Your task to perform on an android device: turn off smart reply in the gmail app Image 0: 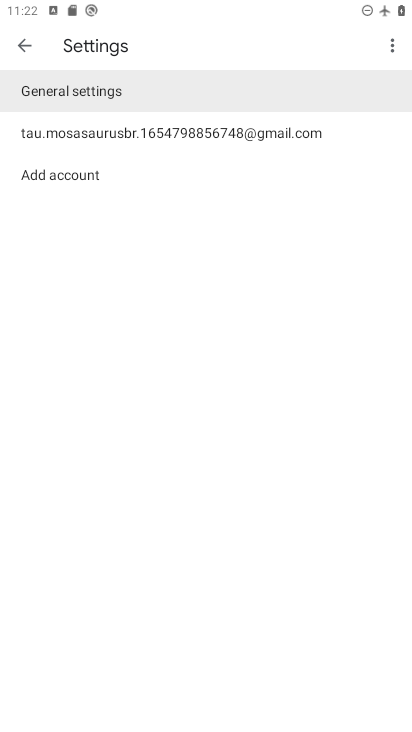
Step 0: press home button
Your task to perform on an android device: turn off smart reply in the gmail app Image 1: 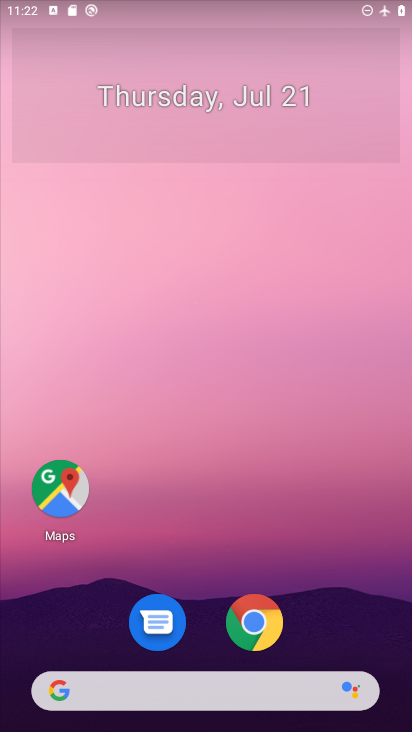
Step 1: drag from (233, 697) to (411, 35)
Your task to perform on an android device: turn off smart reply in the gmail app Image 2: 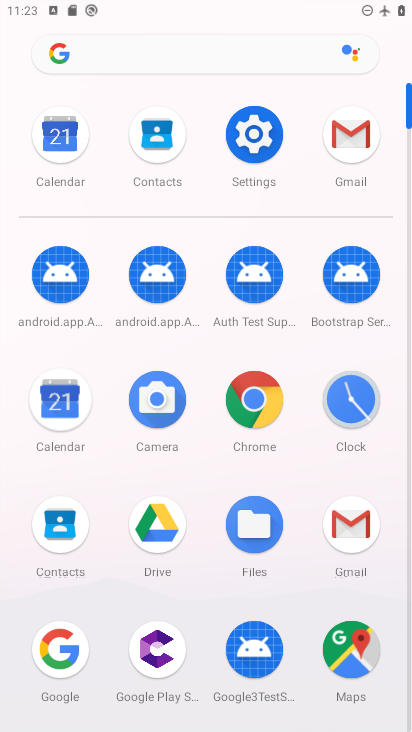
Step 2: click (336, 150)
Your task to perform on an android device: turn off smart reply in the gmail app Image 3: 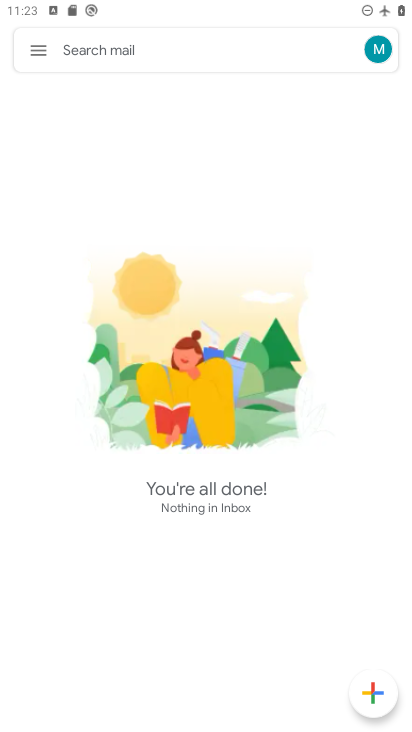
Step 3: click (37, 49)
Your task to perform on an android device: turn off smart reply in the gmail app Image 4: 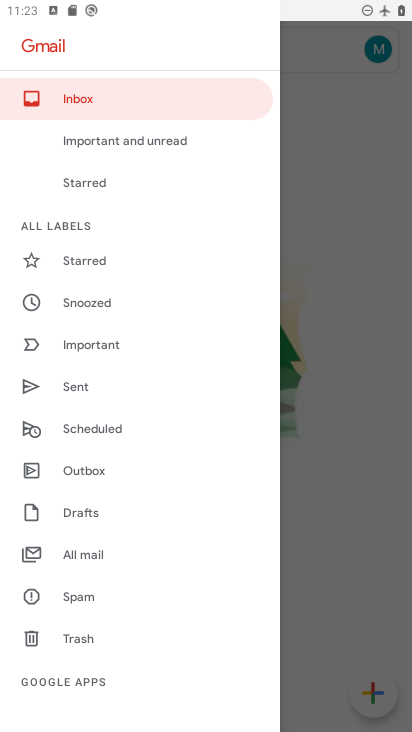
Step 4: drag from (183, 619) to (271, 64)
Your task to perform on an android device: turn off smart reply in the gmail app Image 5: 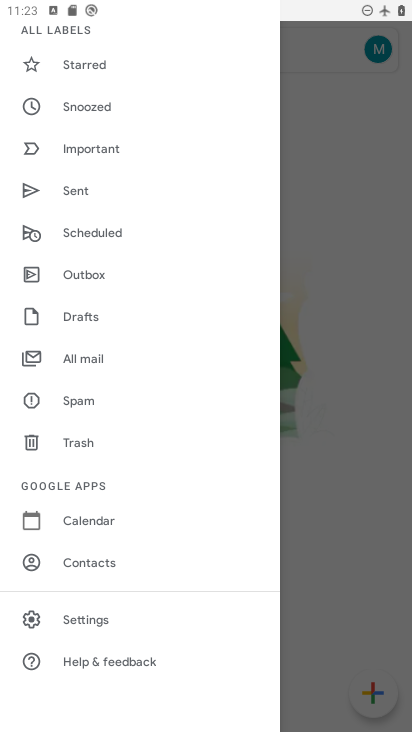
Step 5: click (104, 626)
Your task to perform on an android device: turn off smart reply in the gmail app Image 6: 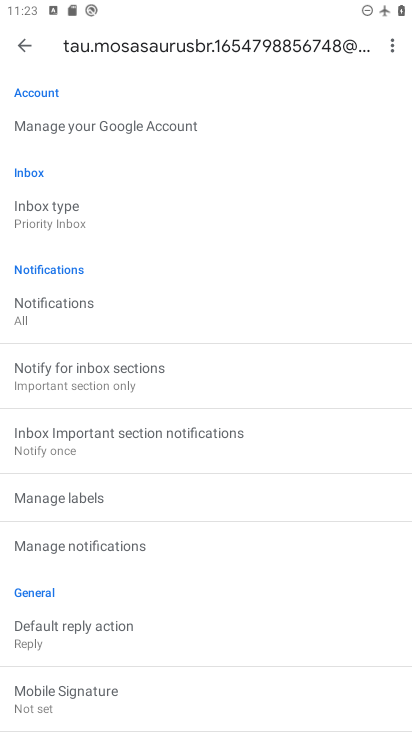
Step 6: drag from (302, 563) to (294, 4)
Your task to perform on an android device: turn off smart reply in the gmail app Image 7: 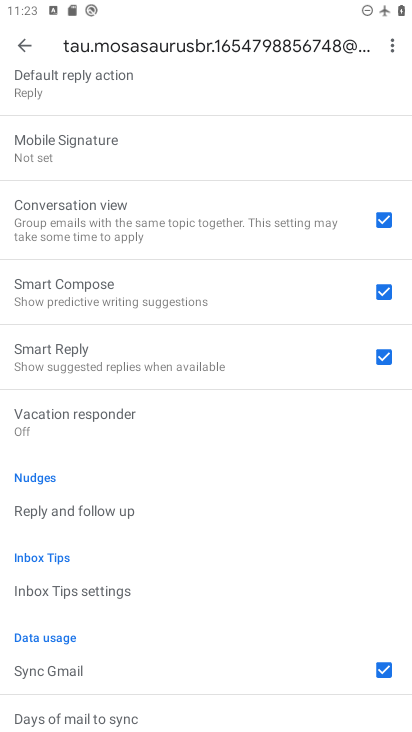
Step 7: click (390, 355)
Your task to perform on an android device: turn off smart reply in the gmail app Image 8: 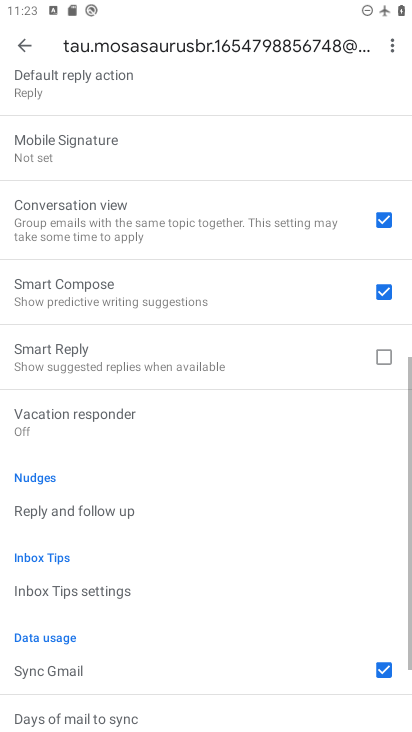
Step 8: task complete